Your task to perform on an android device: open a bookmark in the chrome app Image 0: 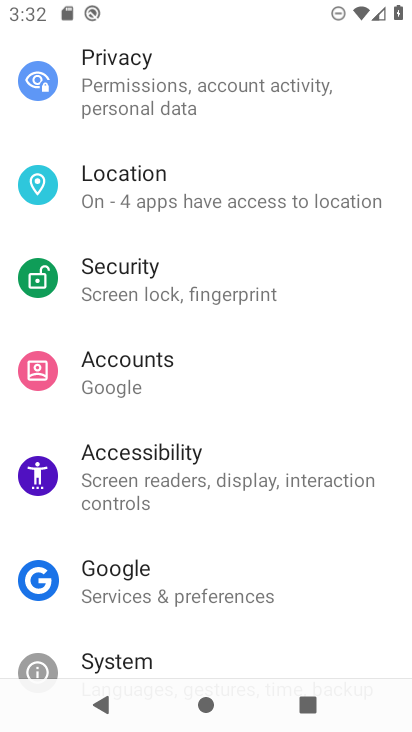
Step 0: press home button
Your task to perform on an android device: open a bookmark in the chrome app Image 1: 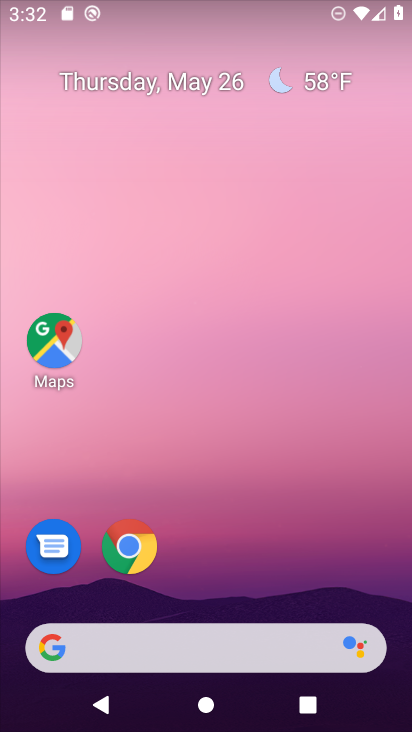
Step 1: click (125, 541)
Your task to perform on an android device: open a bookmark in the chrome app Image 2: 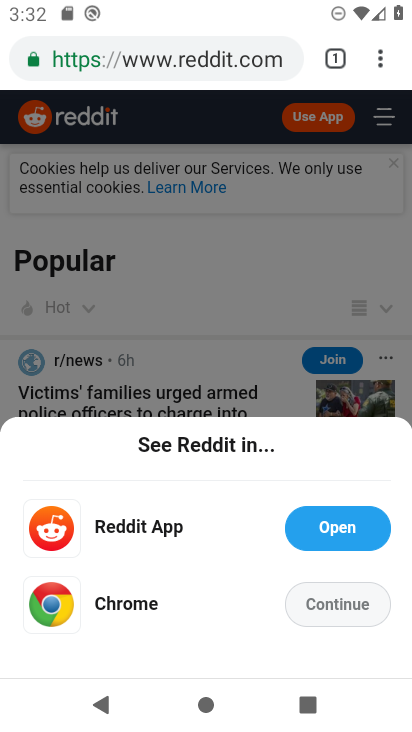
Step 2: click (340, 601)
Your task to perform on an android device: open a bookmark in the chrome app Image 3: 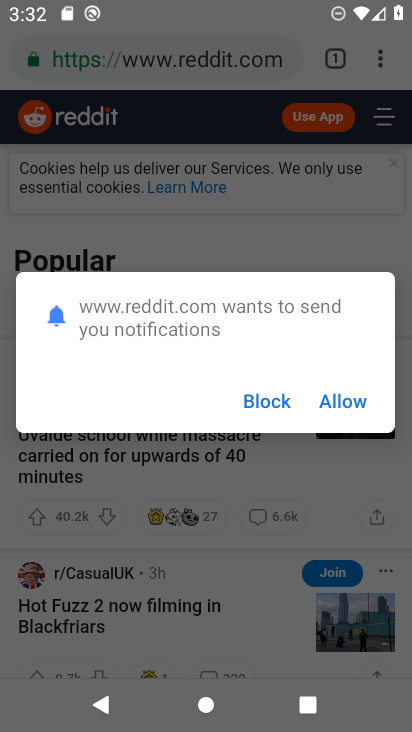
Step 3: click (337, 403)
Your task to perform on an android device: open a bookmark in the chrome app Image 4: 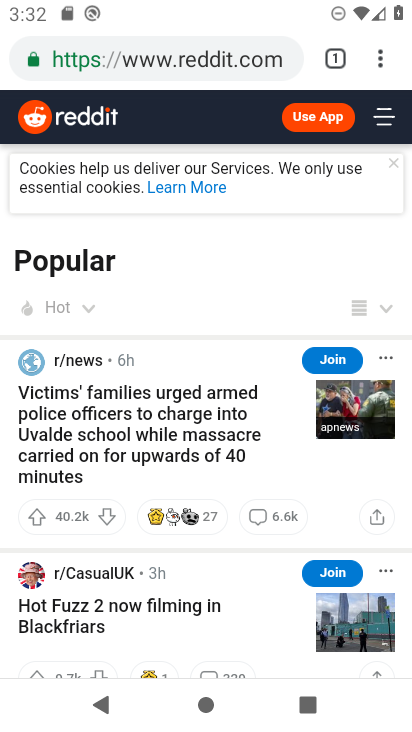
Step 4: click (374, 57)
Your task to perform on an android device: open a bookmark in the chrome app Image 5: 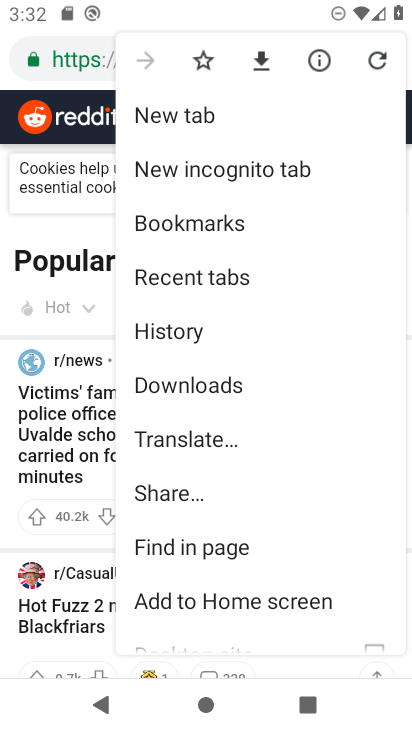
Step 5: click (255, 216)
Your task to perform on an android device: open a bookmark in the chrome app Image 6: 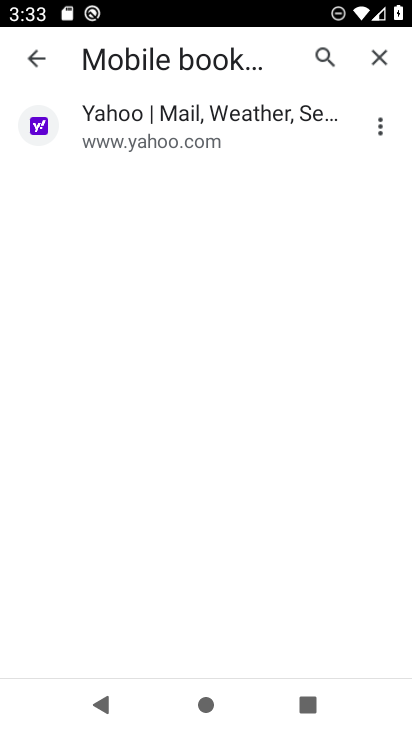
Step 6: task complete